Your task to perform on an android device: Go to battery settings Image 0: 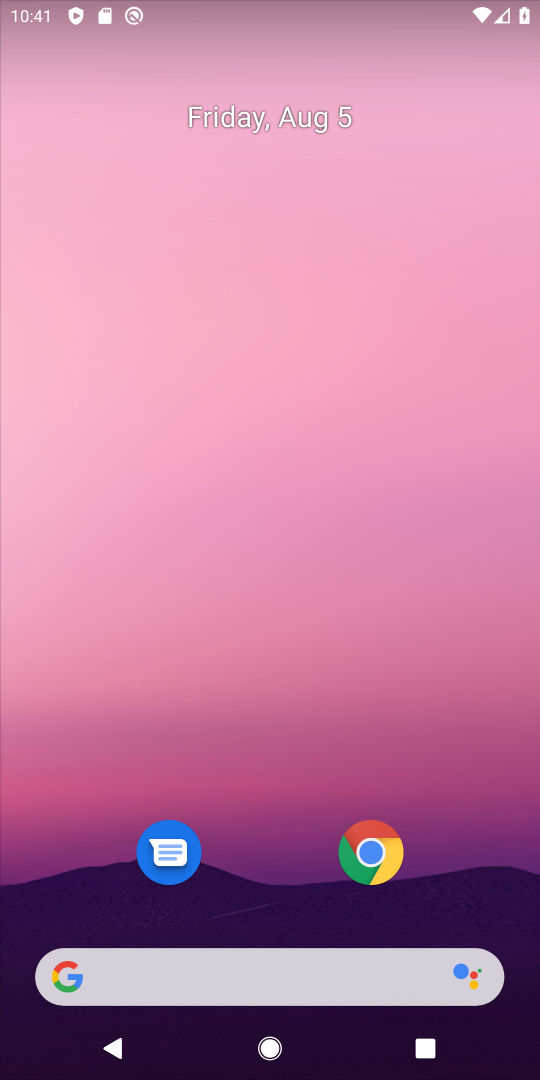
Step 0: drag from (278, 914) to (353, 460)
Your task to perform on an android device: Go to battery settings Image 1: 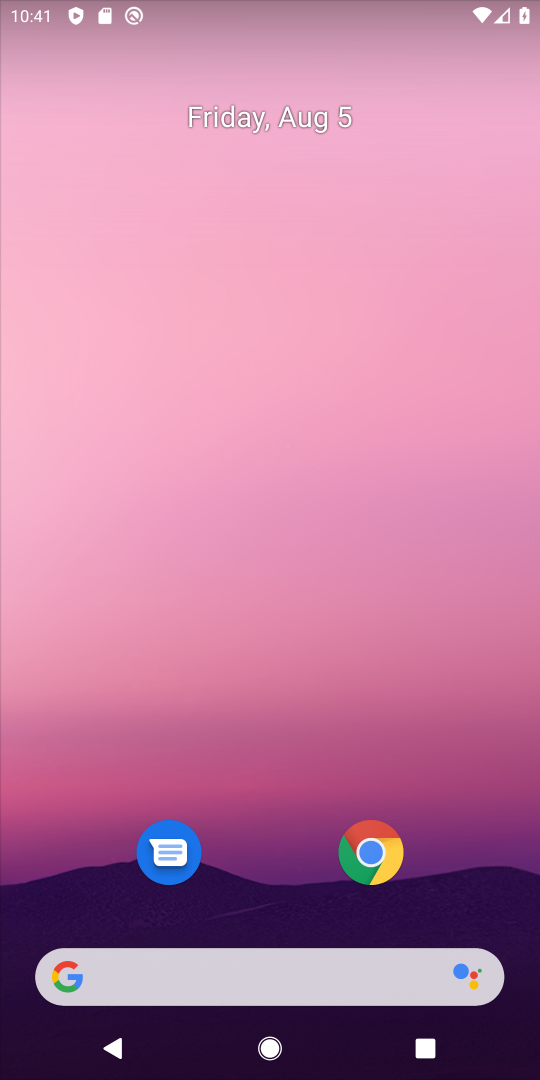
Step 1: drag from (196, 854) to (196, 610)
Your task to perform on an android device: Go to battery settings Image 2: 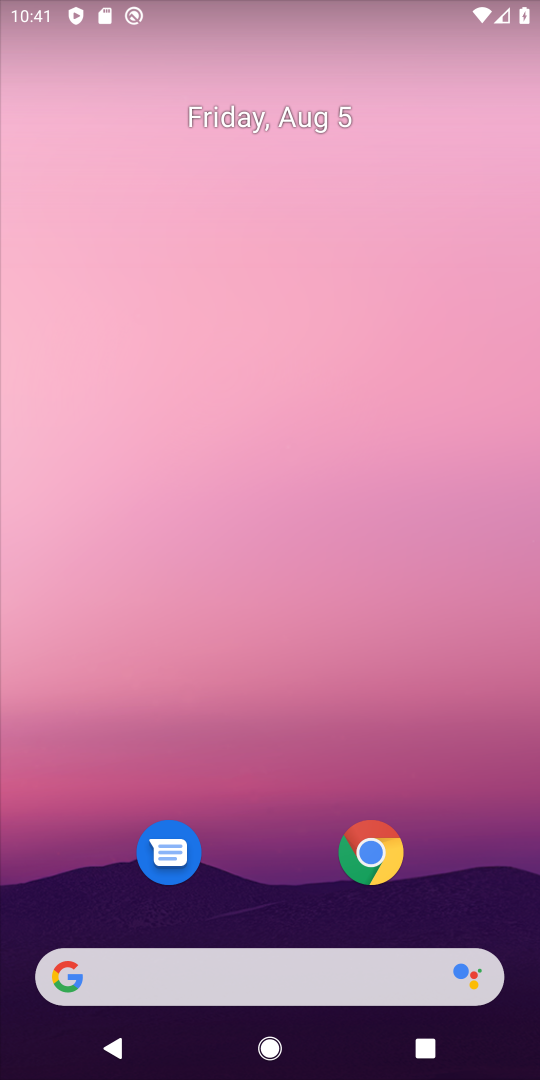
Step 2: drag from (274, 771) to (280, 449)
Your task to perform on an android device: Go to battery settings Image 3: 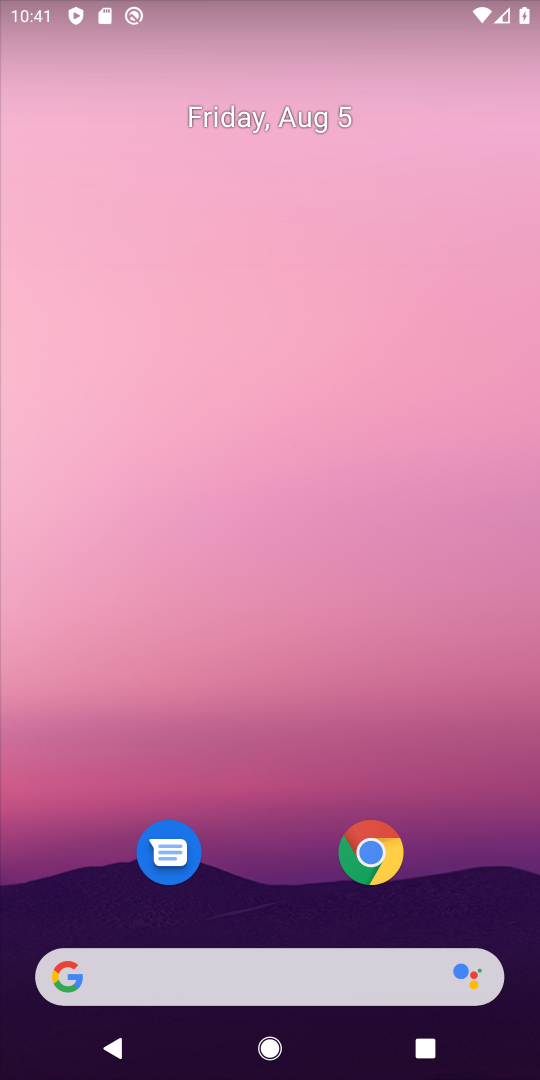
Step 3: drag from (250, 933) to (260, 562)
Your task to perform on an android device: Go to battery settings Image 4: 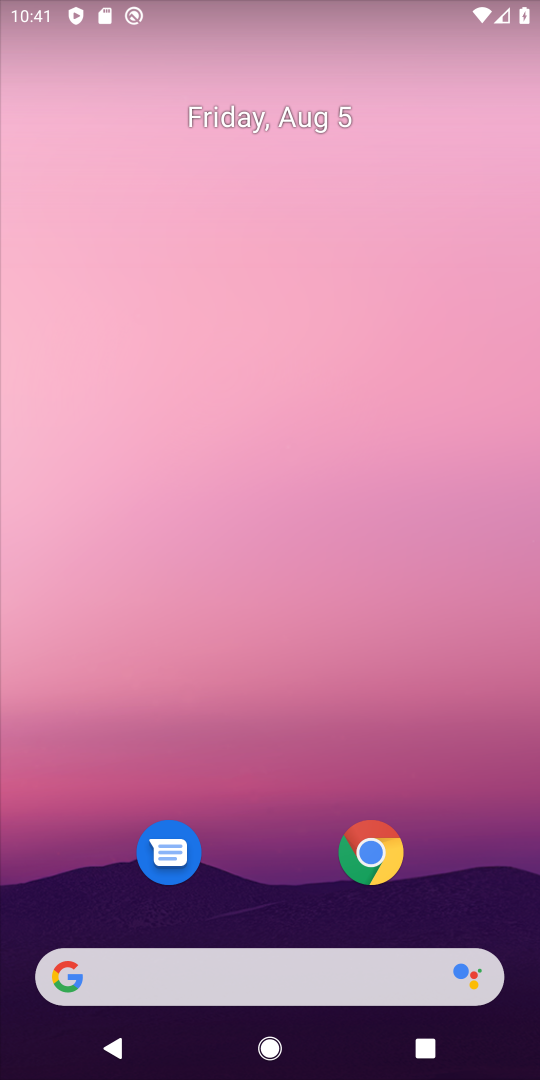
Step 4: drag from (318, 509) to (332, 335)
Your task to perform on an android device: Go to battery settings Image 5: 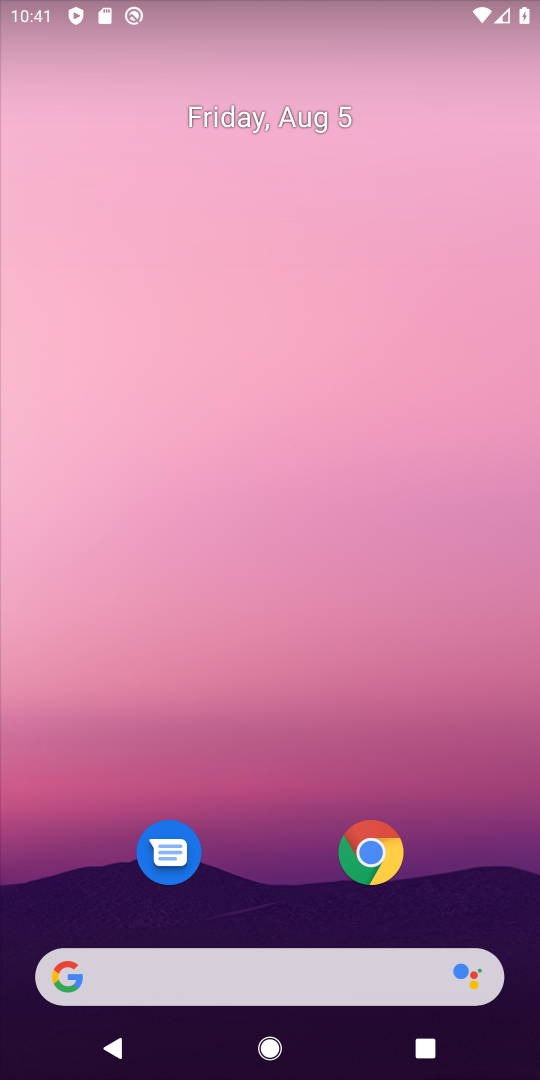
Step 5: drag from (189, 1016) to (212, 437)
Your task to perform on an android device: Go to battery settings Image 6: 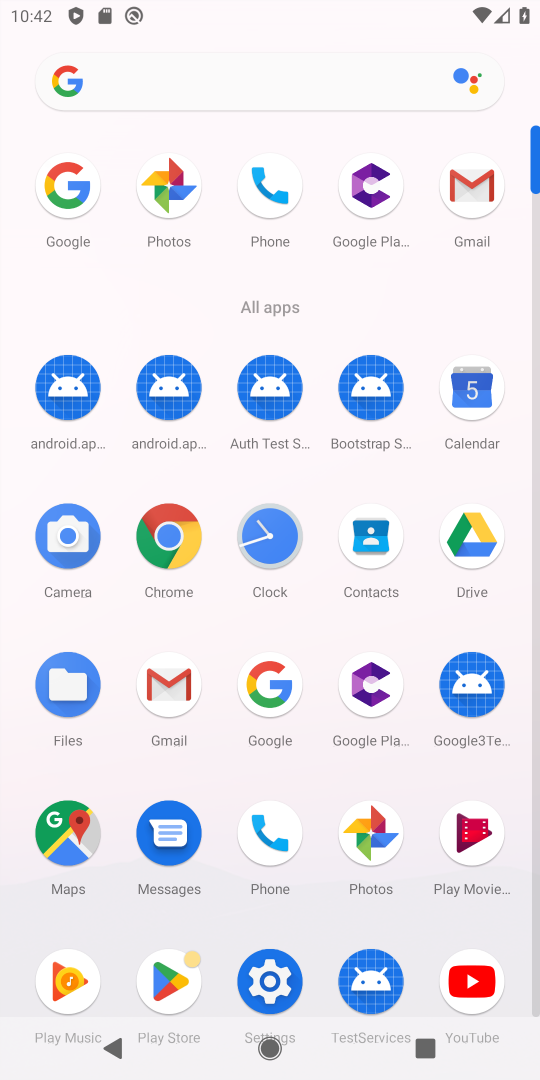
Step 6: click (252, 979)
Your task to perform on an android device: Go to battery settings Image 7: 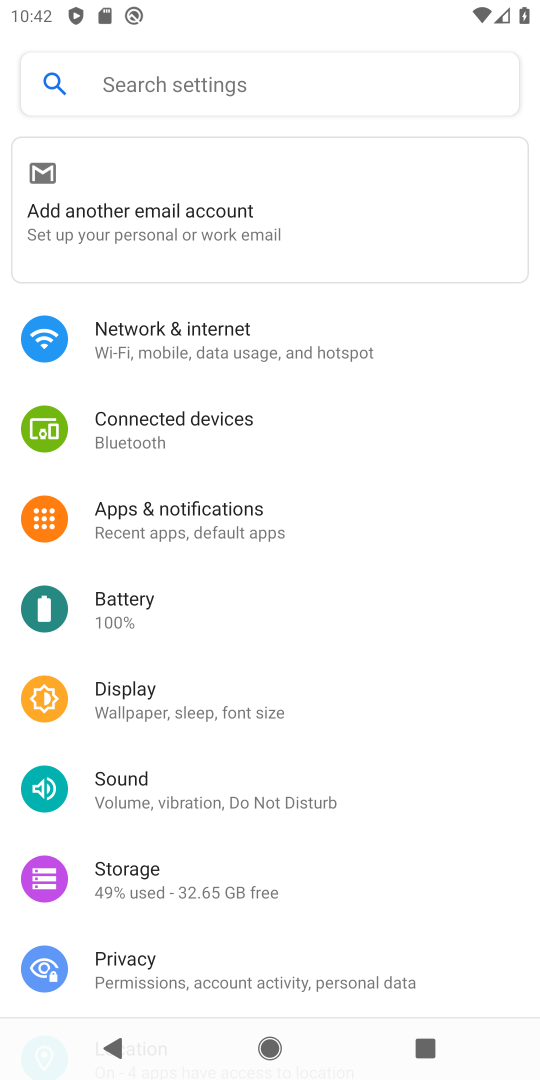
Step 7: drag from (187, 974) to (198, 668)
Your task to perform on an android device: Go to battery settings Image 8: 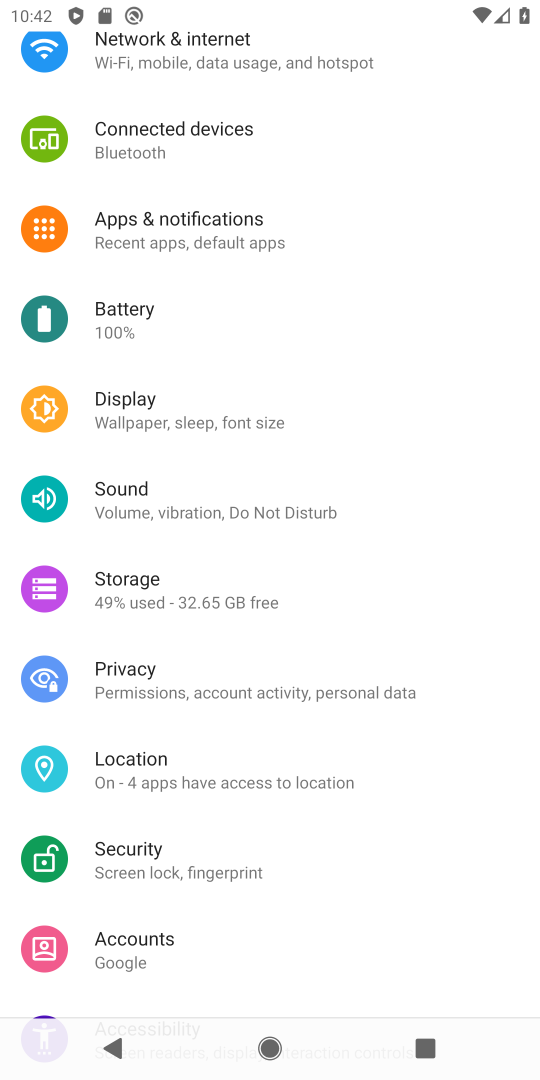
Step 8: click (128, 328)
Your task to perform on an android device: Go to battery settings Image 9: 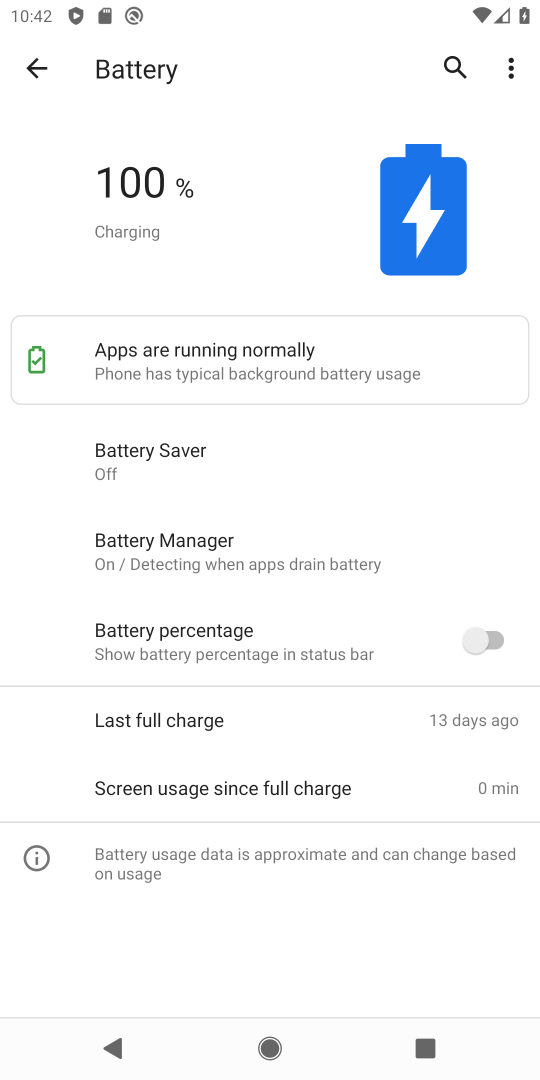
Step 9: task complete